Your task to perform on an android device: What's on my calendar tomorrow? Image 0: 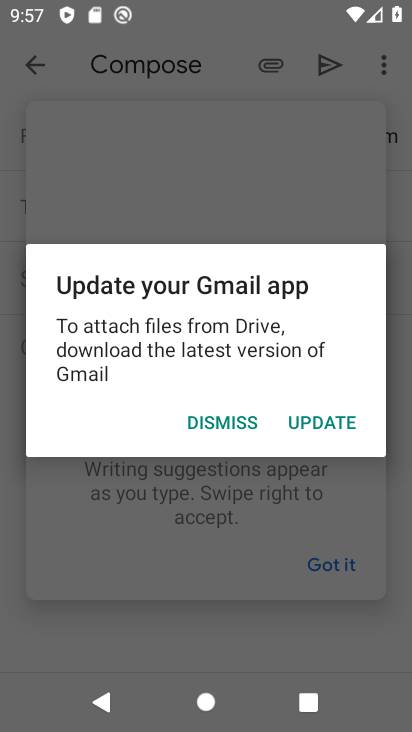
Step 0: press home button
Your task to perform on an android device: What's on my calendar tomorrow? Image 1: 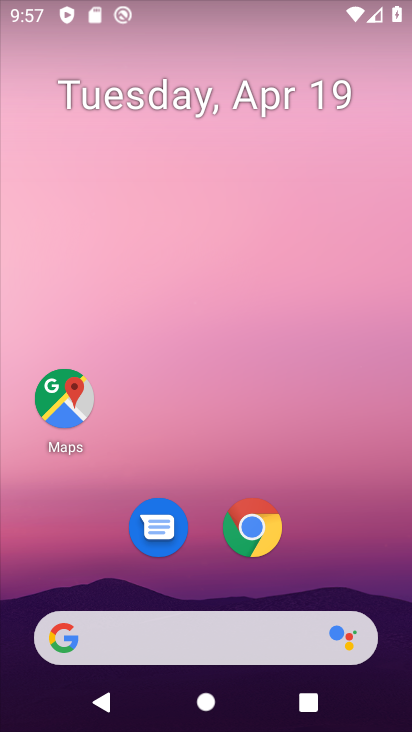
Step 1: drag from (313, 576) to (307, 104)
Your task to perform on an android device: What's on my calendar tomorrow? Image 2: 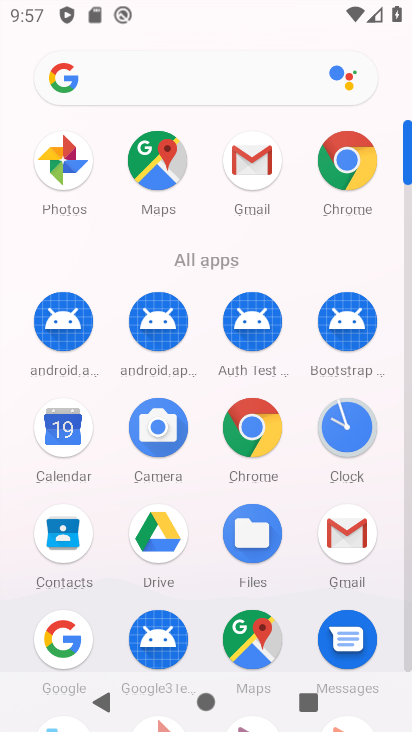
Step 2: click (63, 427)
Your task to perform on an android device: What's on my calendar tomorrow? Image 3: 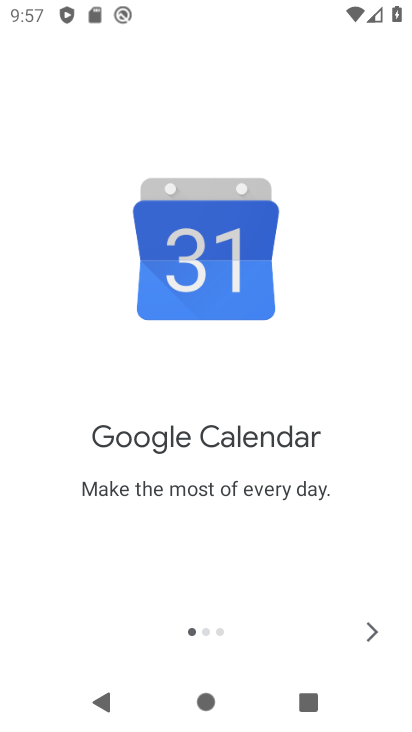
Step 3: click (360, 632)
Your task to perform on an android device: What's on my calendar tomorrow? Image 4: 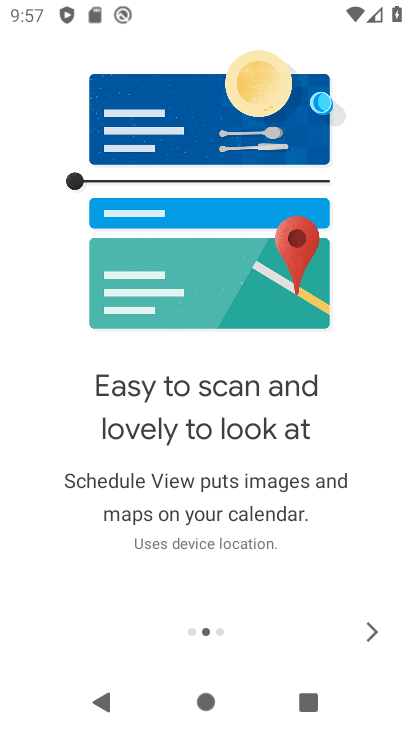
Step 4: click (360, 632)
Your task to perform on an android device: What's on my calendar tomorrow? Image 5: 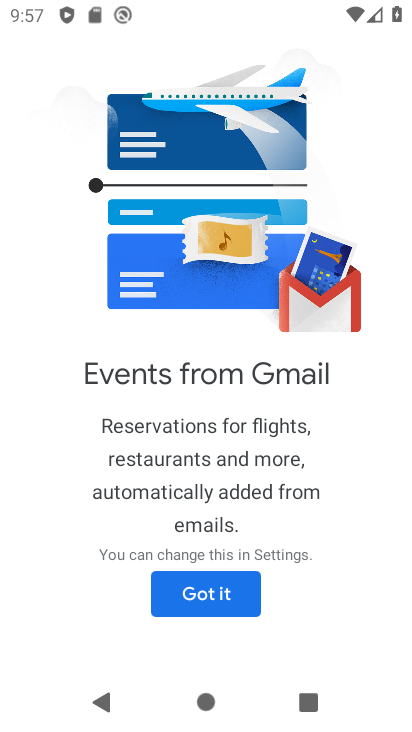
Step 5: click (197, 598)
Your task to perform on an android device: What's on my calendar tomorrow? Image 6: 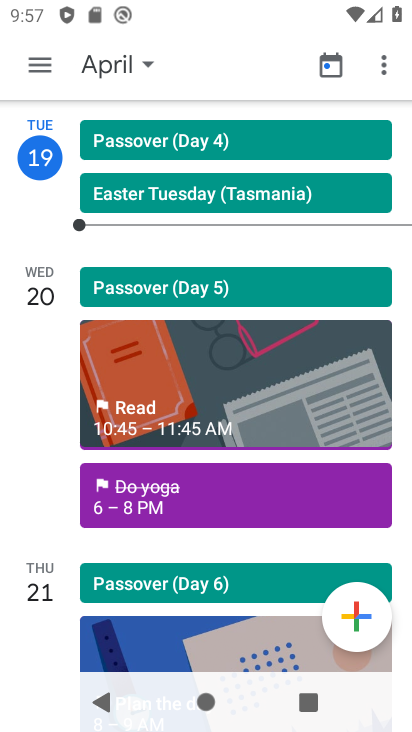
Step 6: click (90, 74)
Your task to perform on an android device: What's on my calendar tomorrow? Image 7: 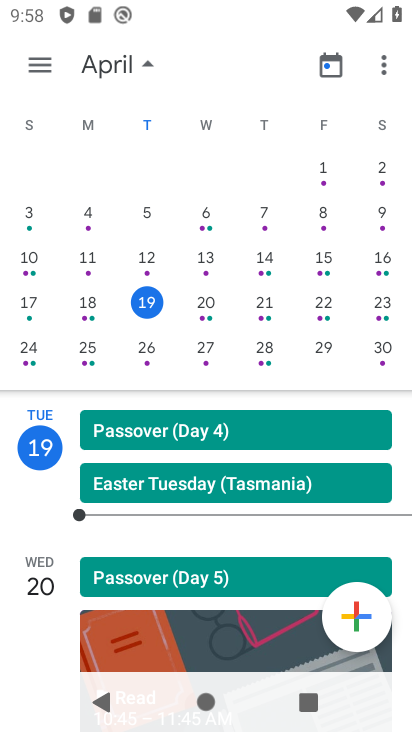
Step 7: click (31, 354)
Your task to perform on an android device: What's on my calendar tomorrow? Image 8: 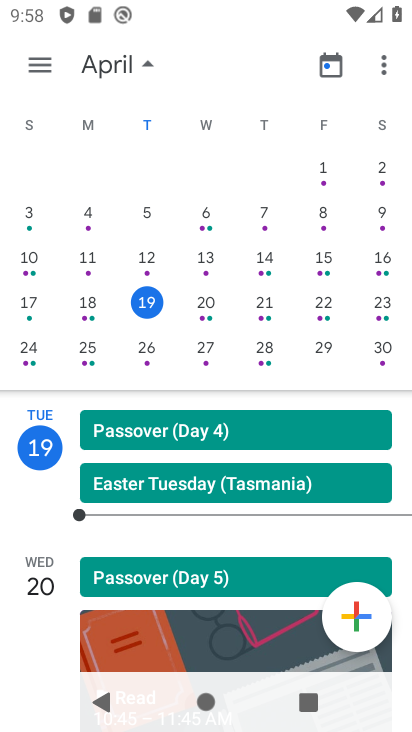
Step 8: click (91, 358)
Your task to perform on an android device: What's on my calendar tomorrow? Image 9: 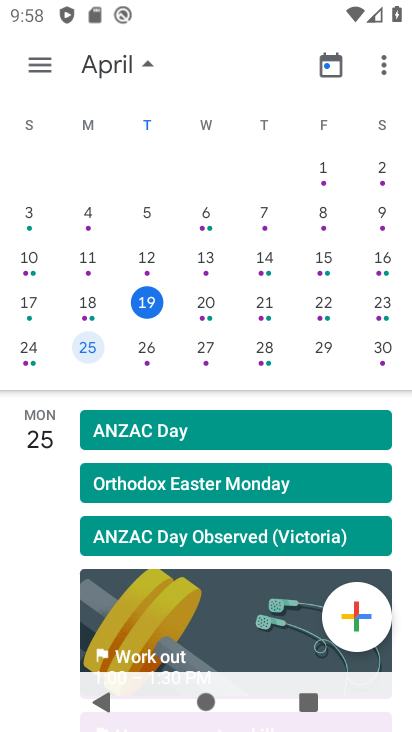
Step 9: click (147, 356)
Your task to perform on an android device: What's on my calendar tomorrow? Image 10: 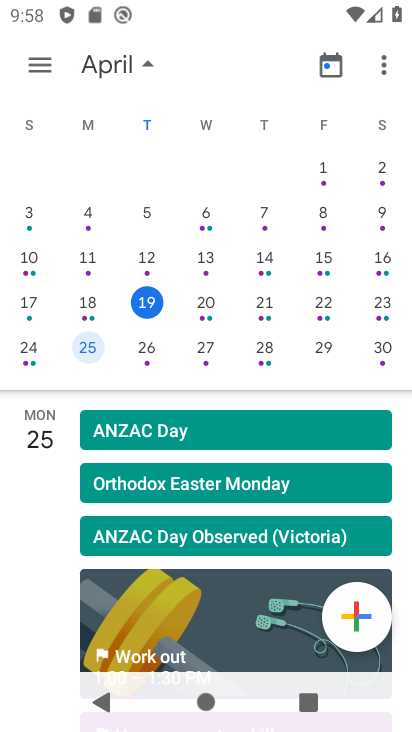
Step 10: click (200, 356)
Your task to perform on an android device: What's on my calendar tomorrow? Image 11: 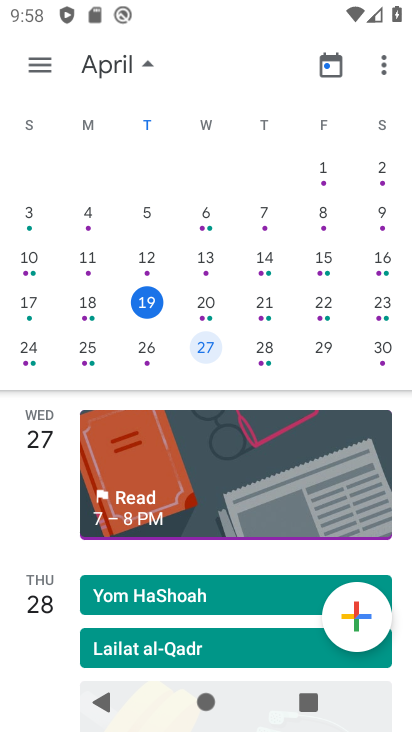
Step 11: click (260, 361)
Your task to perform on an android device: What's on my calendar tomorrow? Image 12: 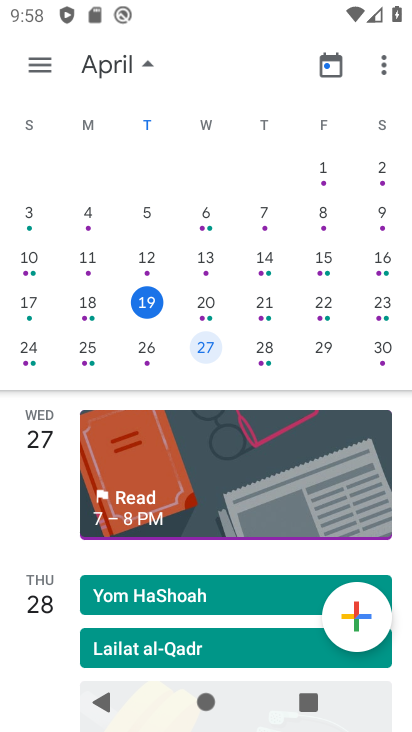
Step 12: click (325, 355)
Your task to perform on an android device: What's on my calendar tomorrow? Image 13: 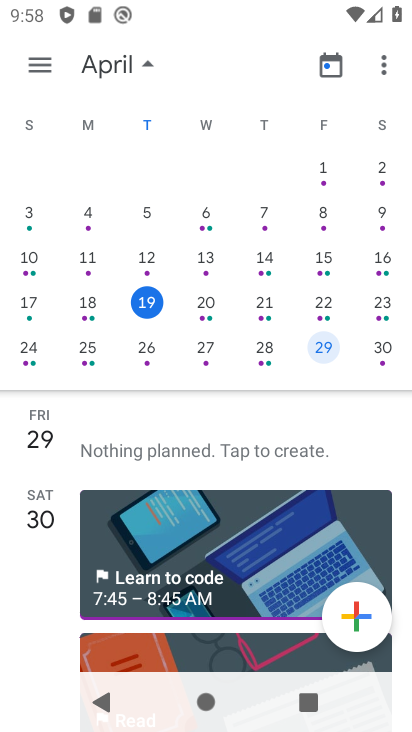
Step 13: click (382, 366)
Your task to perform on an android device: What's on my calendar tomorrow? Image 14: 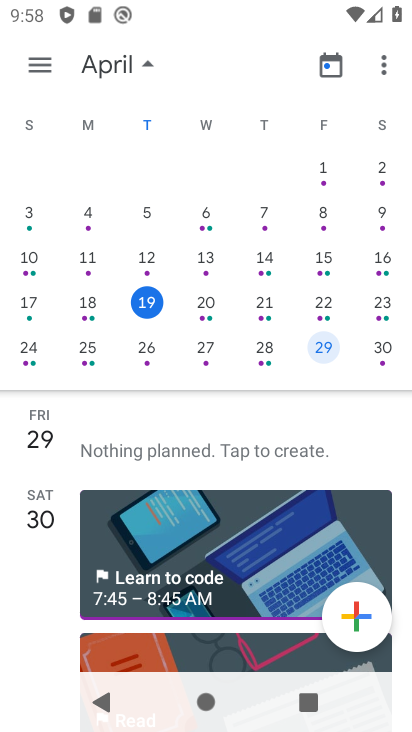
Step 14: click (381, 364)
Your task to perform on an android device: What's on my calendar tomorrow? Image 15: 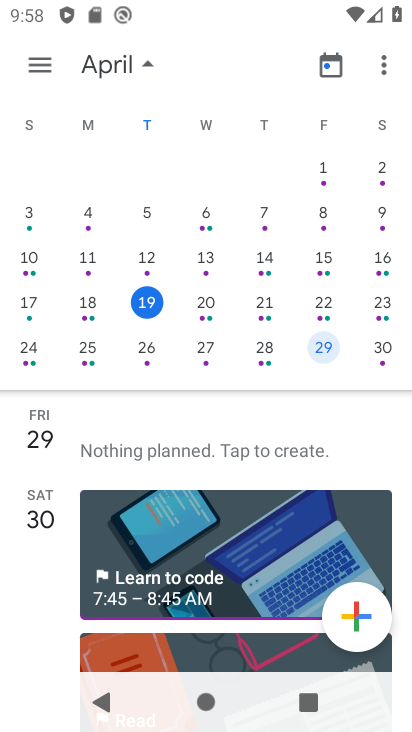
Step 15: click (386, 362)
Your task to perform on an android device: What's on my calendar tomorrow? Image 16: 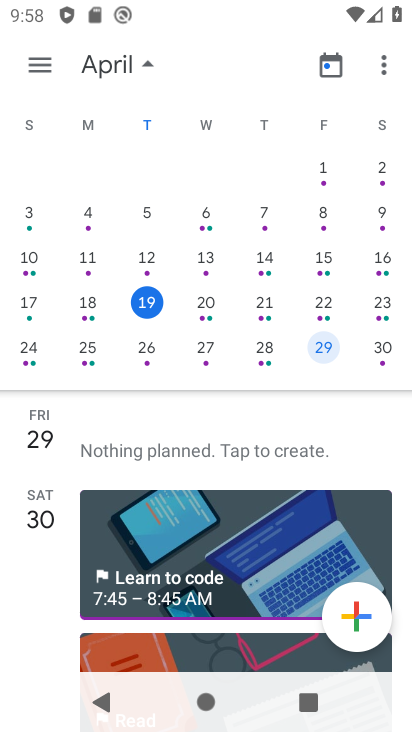
Step 16: click (386, 362)
Your task to perform on an android device: What's on my calendar tomorrow? Image 17: 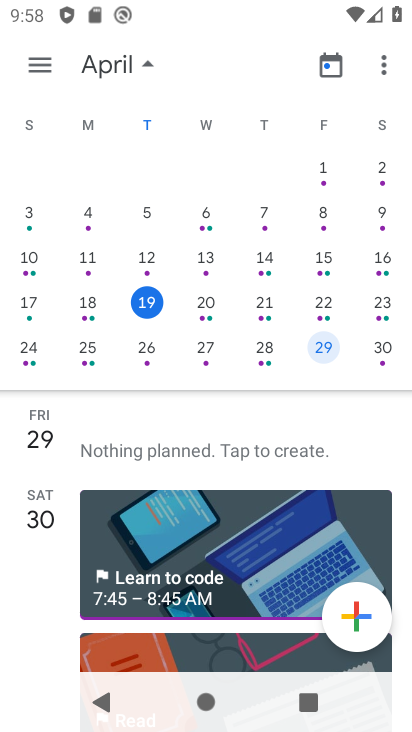
Step 17: click (383, 359)
Your task to perform on an android device: What's on my calendar tomorrow? Image 18: 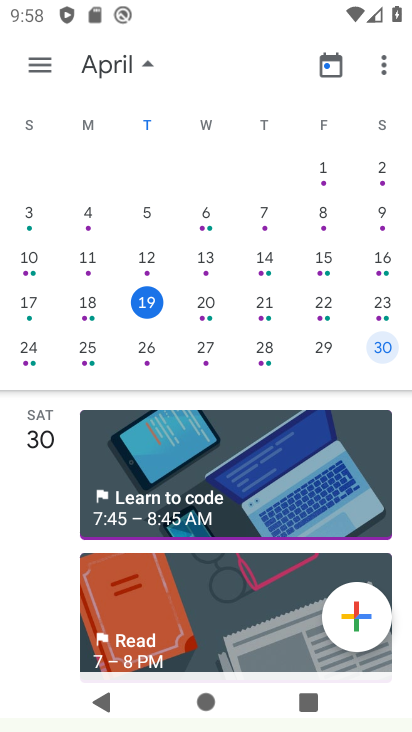
Step 18: task complete